Your task to perform on an android device: Open the stopwatch Image 0: 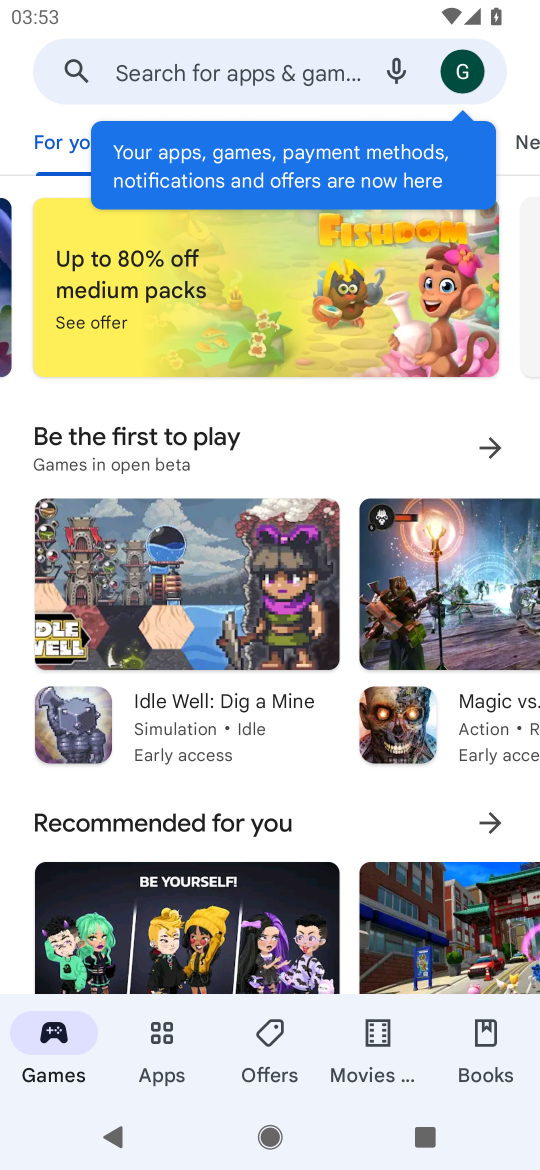
Step 0: press back button
Your task to perform on an android device: Open the stopwatch Image 1: 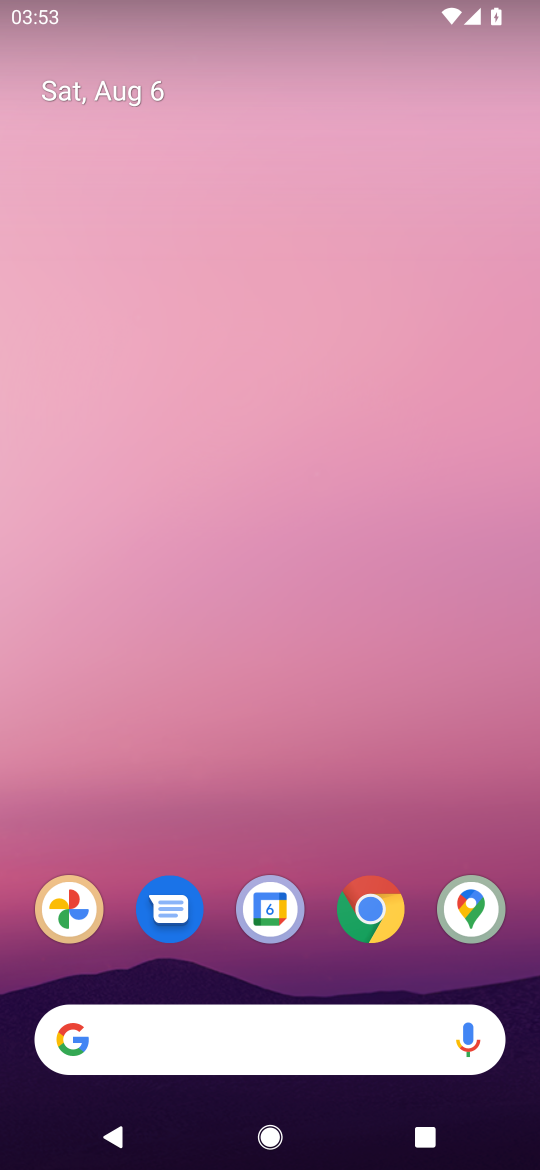
Step 1: drag from (242, 996) to (393, 40)
Your task to perform on an android device: Open the stopwatch Image 2: 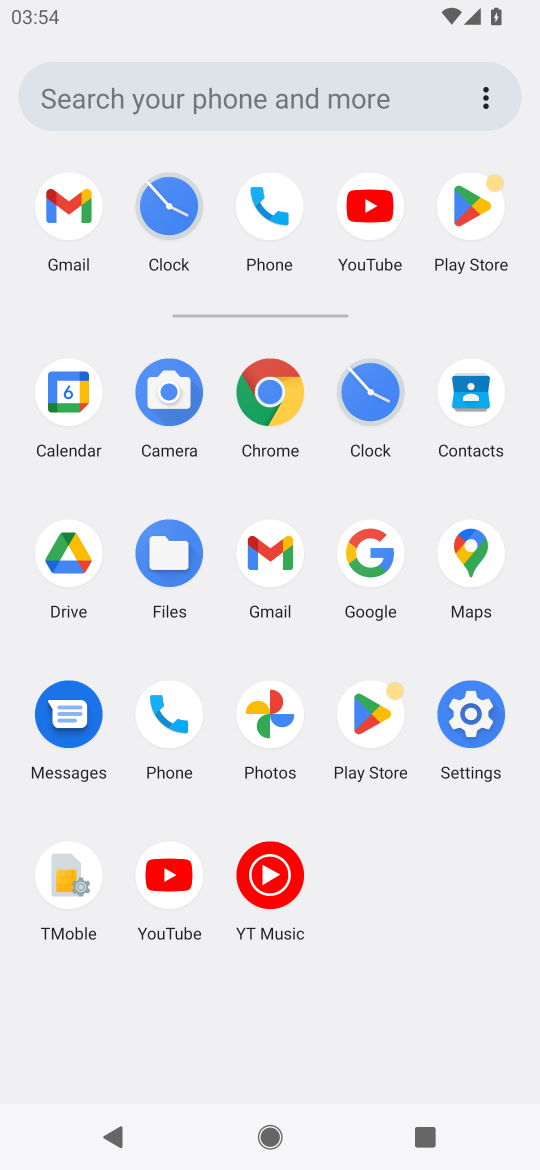
Step 2: click (360, 399)
Your task to perform on an android device: Open the stopwatch Image 3: 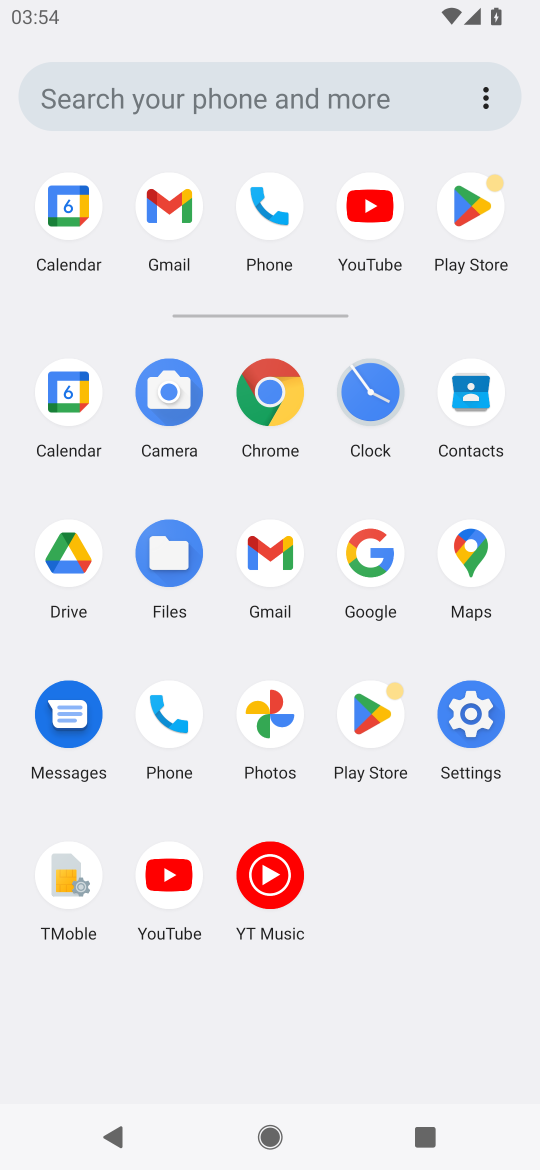
Step 3: click (378, 410)
Your task to perform on an android device: Open the stopwatch Image 4: 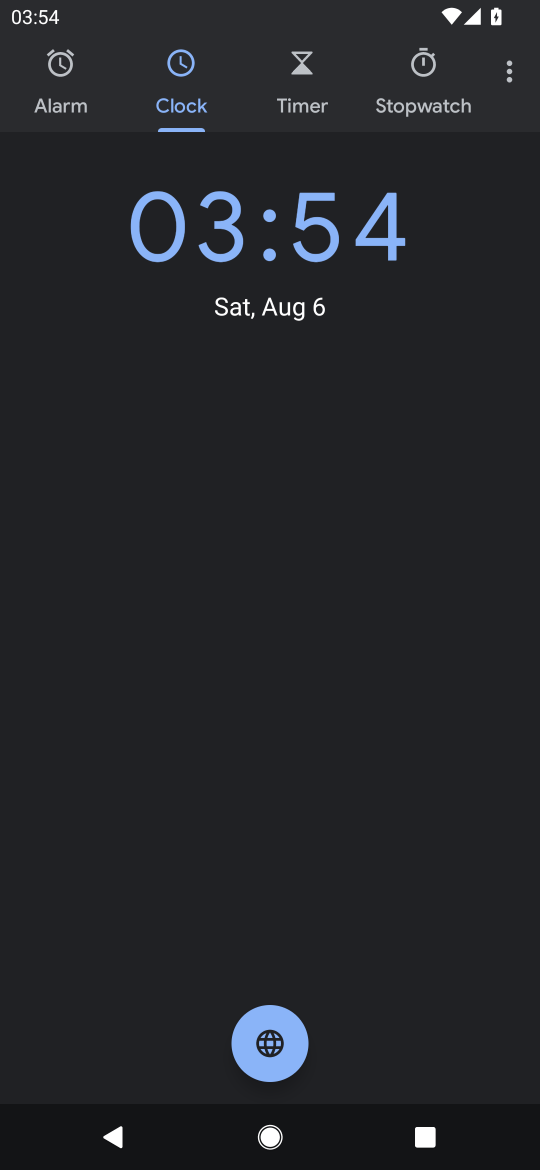
Step 4: click (420, 63)
Your task to perform on an android device: Open the stopwatch Image 5: 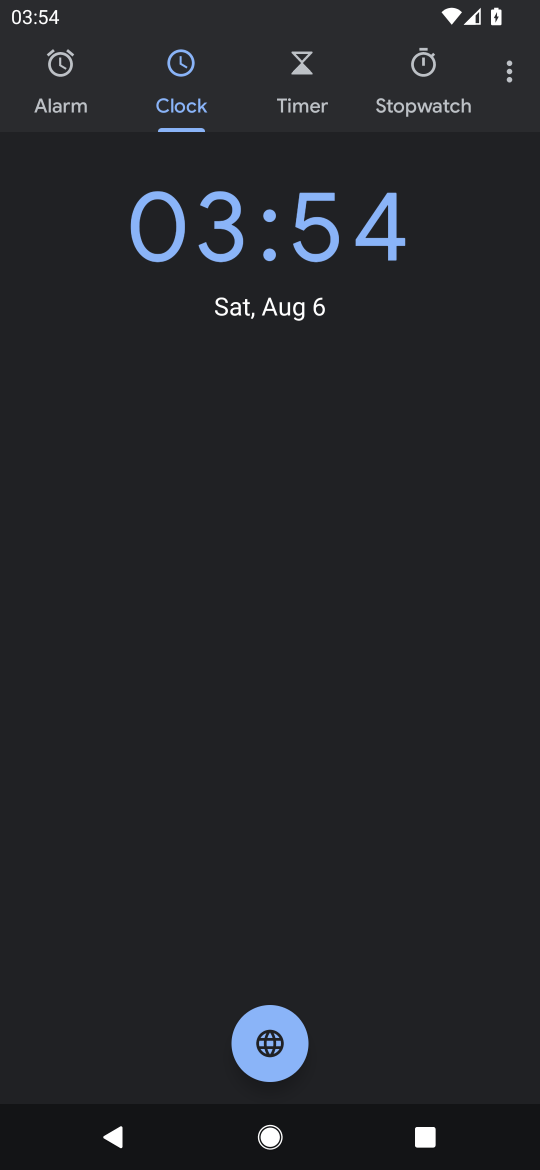
Step 5: click (448, 69)
Your task to perform on an android device: Open the stopwatch Image 6: 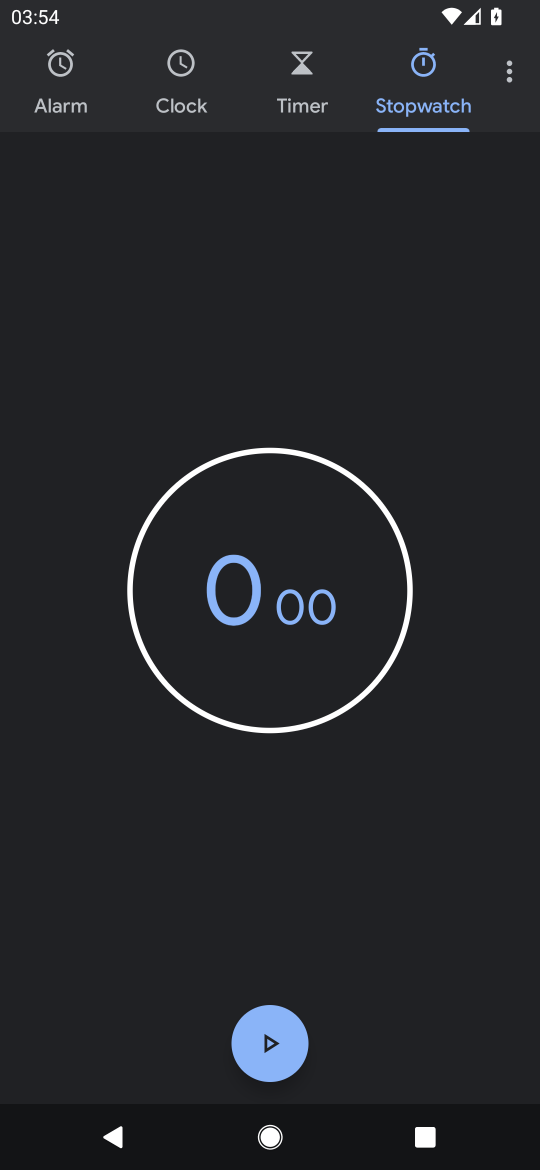
Step 6: task complete